Your task to perform on an android device: check battery use Image 0: 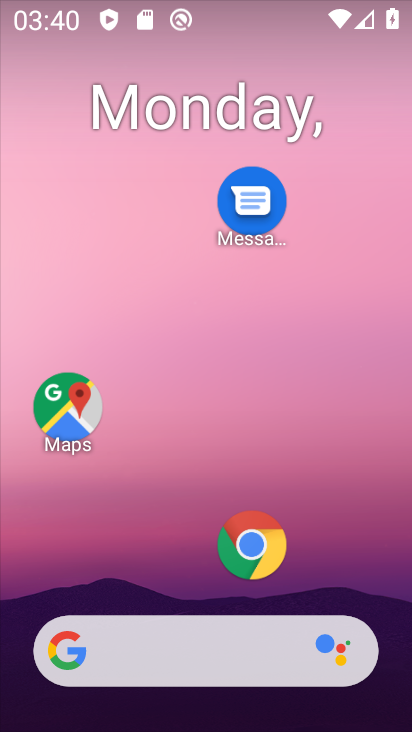
Step 0: drag from (186, 514) to (285, 120)
Your task to perform on an android device: check battery use Image 1: 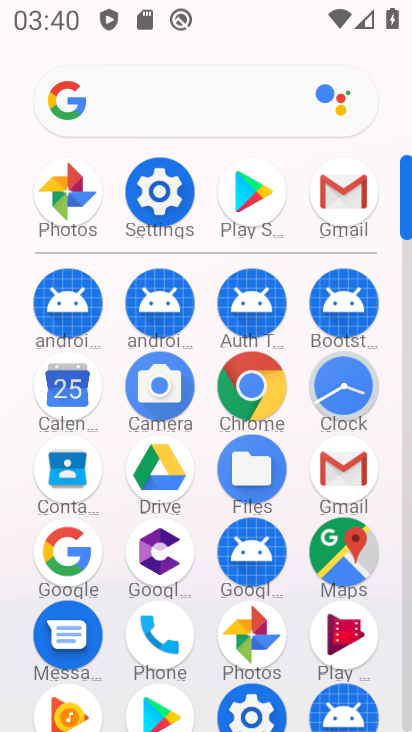
Step 1: click (168, 192)
Your task to perform on an android device: check battery use Image 2: 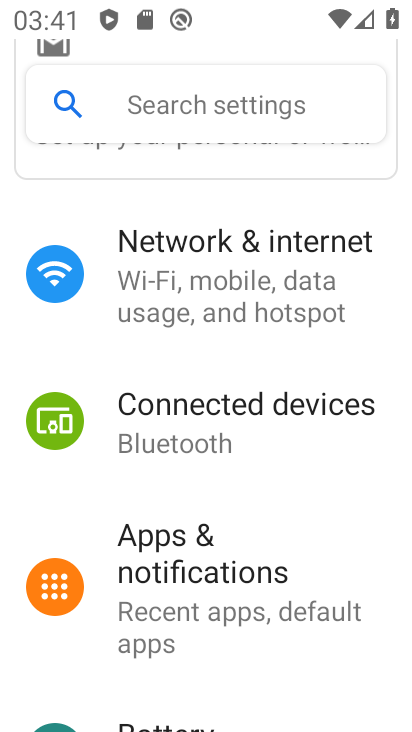
Step 2: drag from (167, 658) to (274, 193)
Your task to perform on an android device: check battery use Image 3: 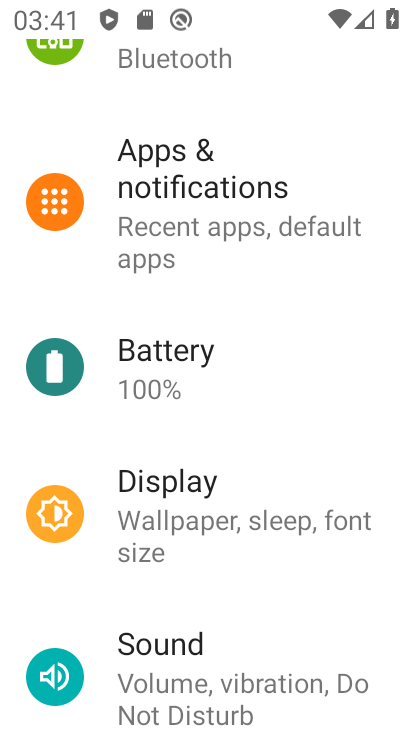
Step 3: click (199, 363)
Your task to perform on an android device: check battery use Image 4: 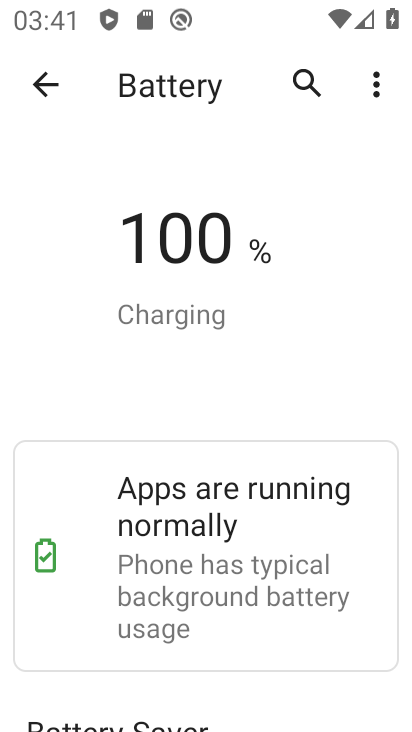
Step 4: click (379, 86)
Your task to perform on an android device: check battery use Image 5: 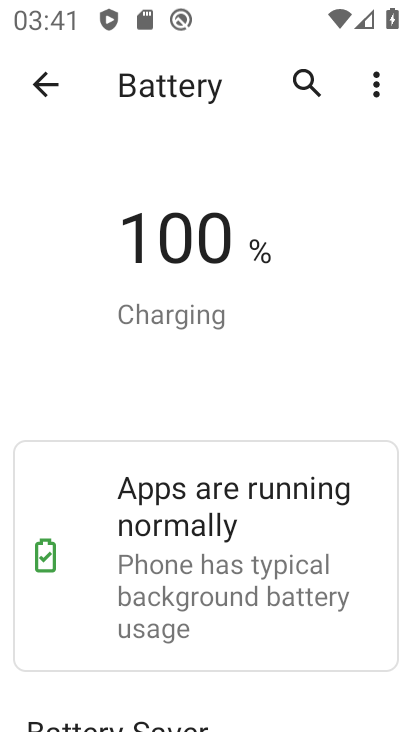
Step 5: click (376, 73)
Your task to perform on an android device: check battery use Image 6: 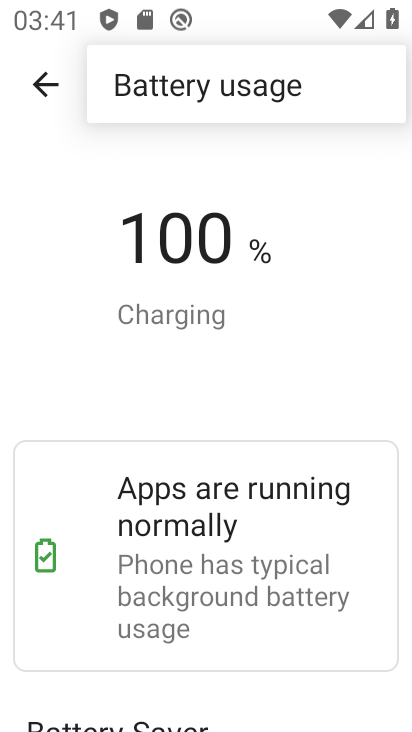
Step 6: click (195, 100)
Your task to perform on an android device: check battery use Image 7: 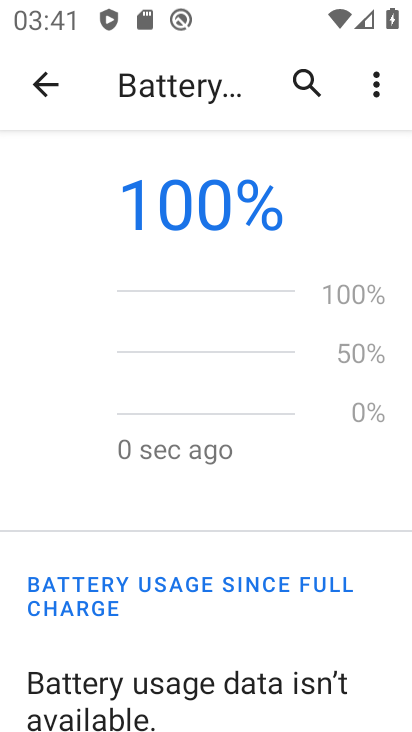
Step 7: task complete